Your task to perform on an android device: toggle notifications settings in the gmail app Image 0: 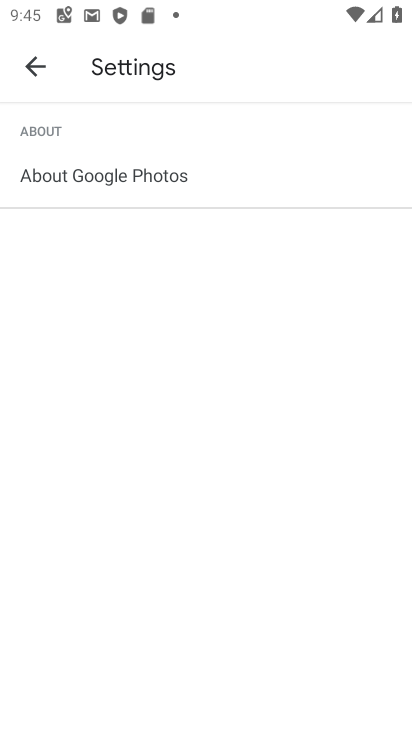
Step 0: press home button
Your task to perform on an android device: toggle notifications settings in the gmail app Image 1: 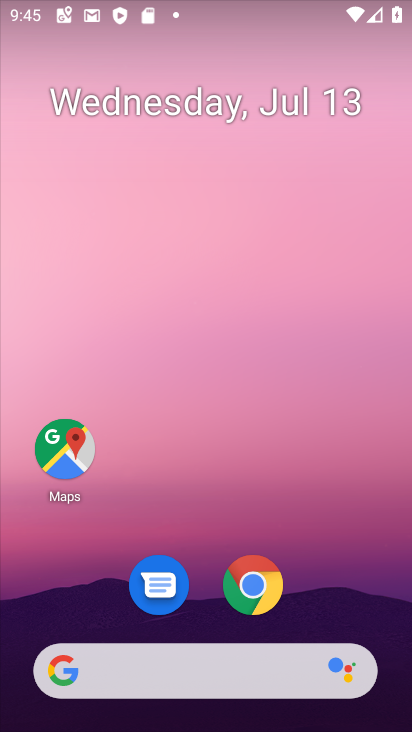
Step 1: drag from (323, 569) to (329, 36)
Your task to perform on an android device: toggle notifications settings in the gmail app Image 2: 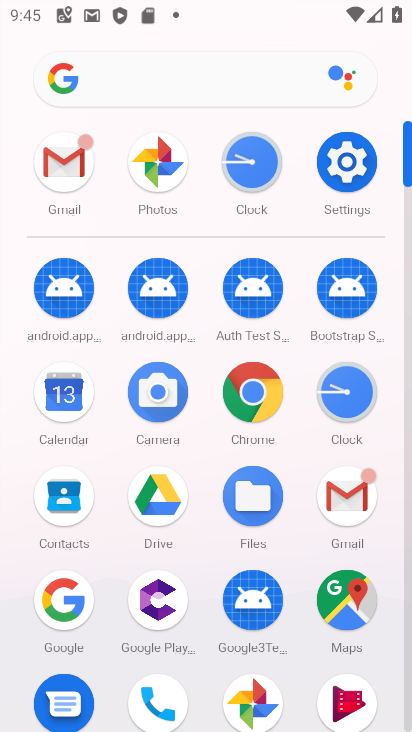
Step 2: click (67, 154)
Your task to perform on an android device: toggle notifications settings in the gmail app Image 3: 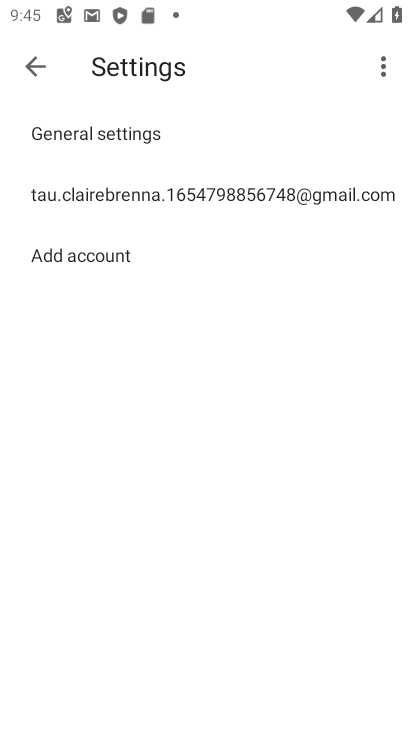
Step 3: click (125, 136)
Your task to perform on an android device: toggle notifications settings in the gmail app Image 4: 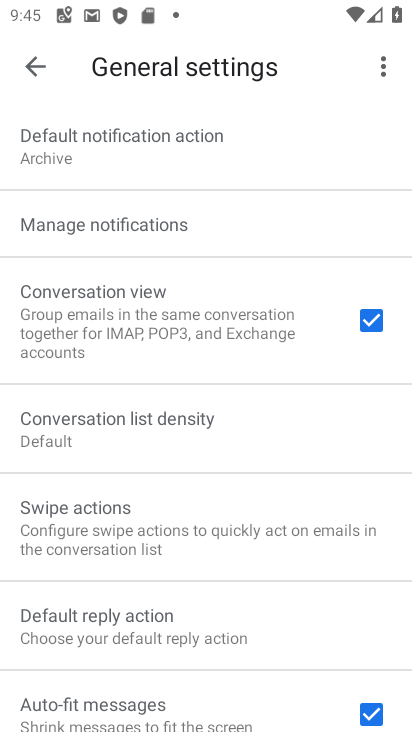
Step 4: click (183, 217)
Your task to perform on an android device: toggle notifications settings in the gmail app Image 5: 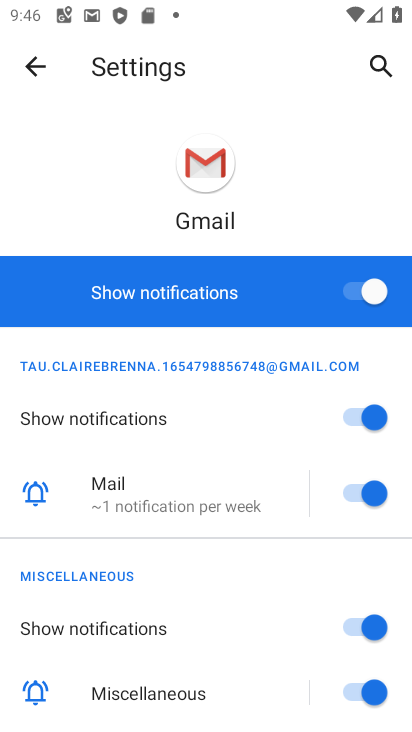
Step 5: click (361, 289)
Your task to perform on an android device: toggle notifications settings in the gmail app Image 6: 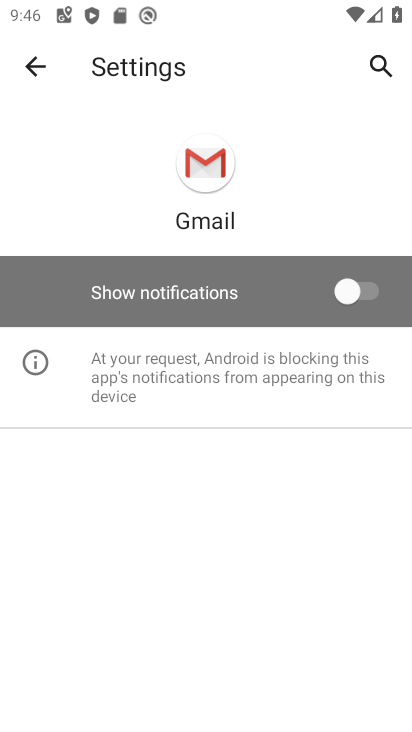
Step 6: task complete